Your task to perform on an android device: Open settings on Google Maps Image 0: 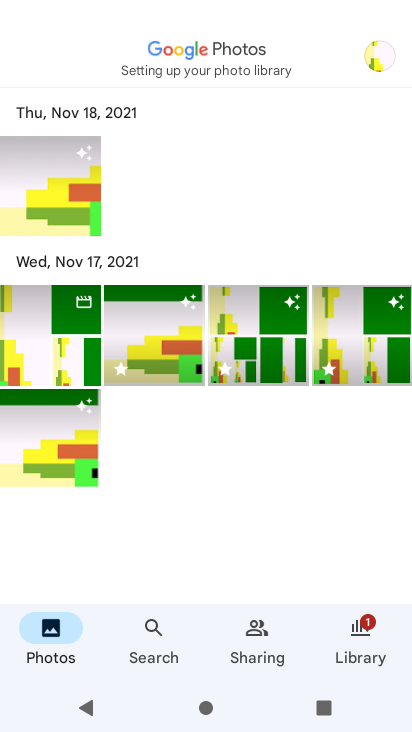
Step 0: press home button
Your task to perform on an android device: Open settings on Google Maps Image 1: 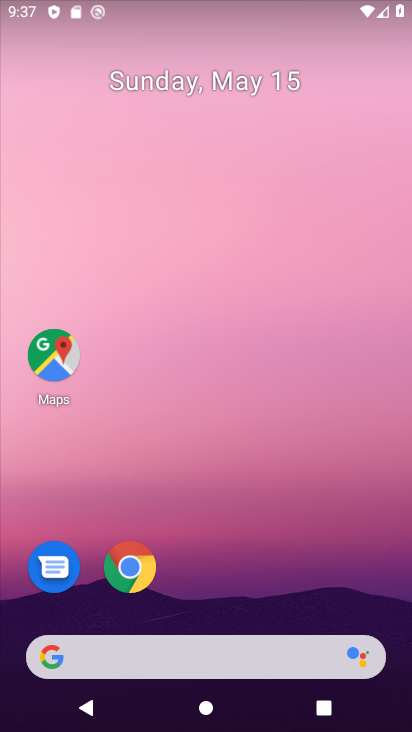
Step 1: click (52, 353)
Your task to perform on an android device: Open settings on Google Maps Image 2: 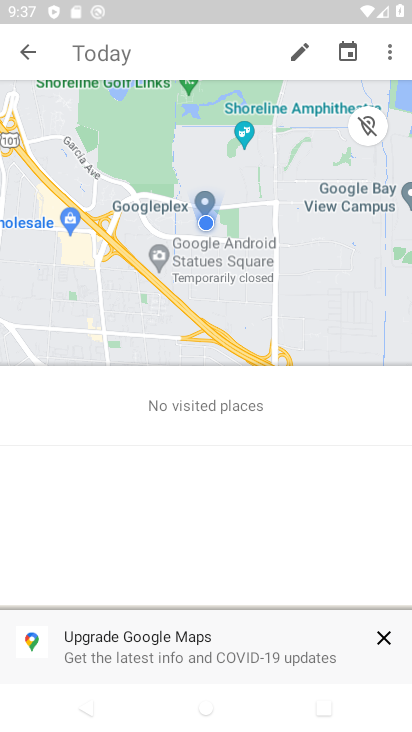
Step 2: press back button
Your task to perform on an android device: Open settings on Google Maps Image 3: 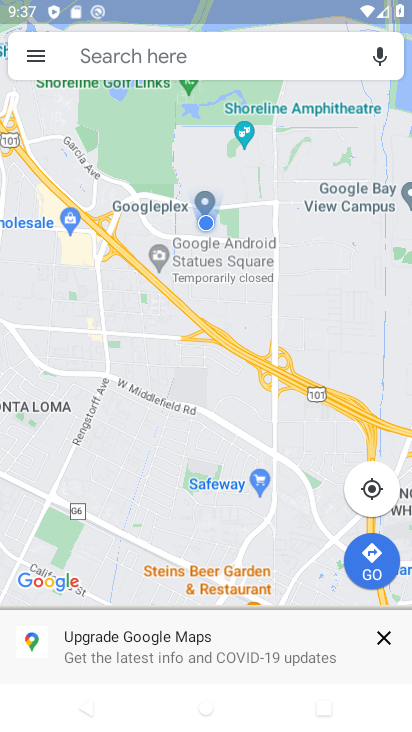
Step 3: click (36, 58)
Your task to perform on an android device: Open settings on Google Maps Image 4: 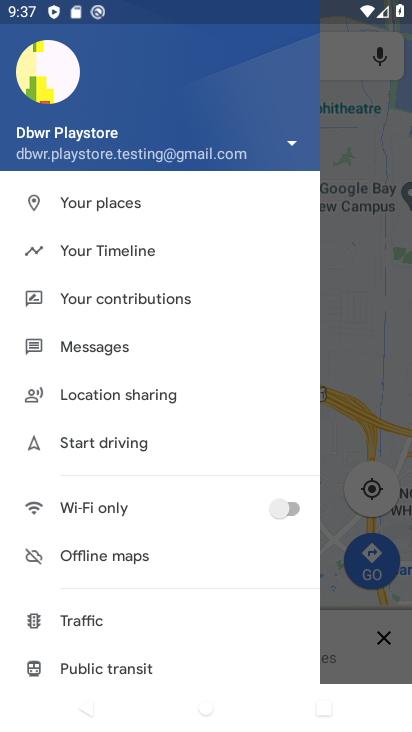
Step 4: drag from (175, 623) to (133, 139)
Your task to perform on an android device: Open settings on Google Maps Image 5: 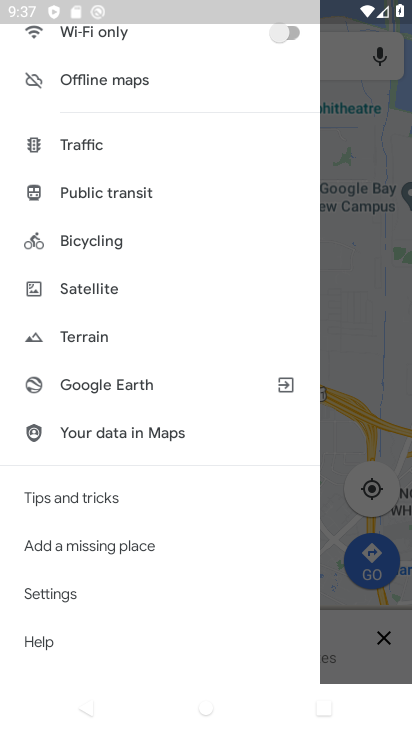
Step 5: click (20, 587)
Your task to perform on an android device: Open settings on Google Maps Image 6: 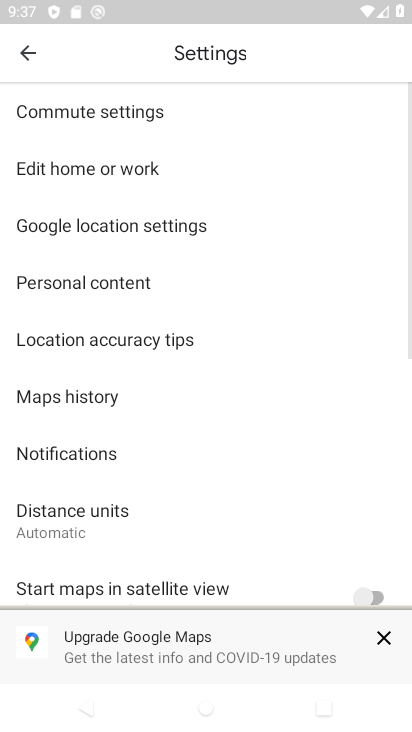
Step 6: task complete